Your task to perform on an android device: Open Amazon Image 0: 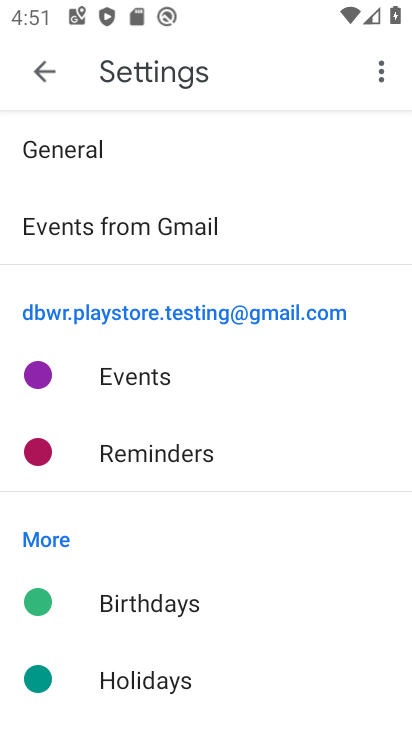
Step 0: press home button
Your task to perform on an android device: Open Amazon Image 1: 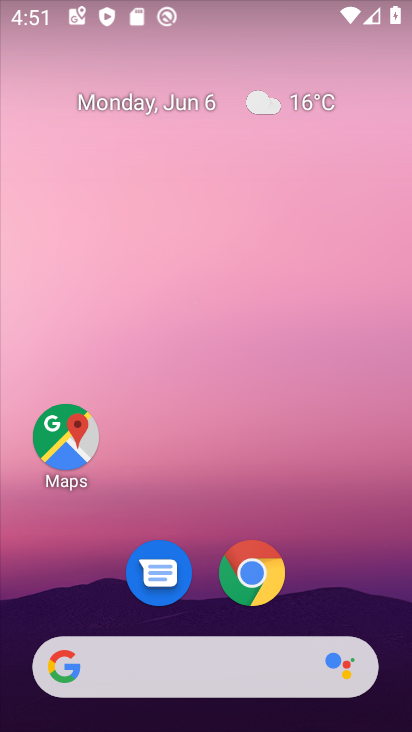
Step 1: click (248, 565)
Your task to perform on an android device: Open Amazon Image 2: 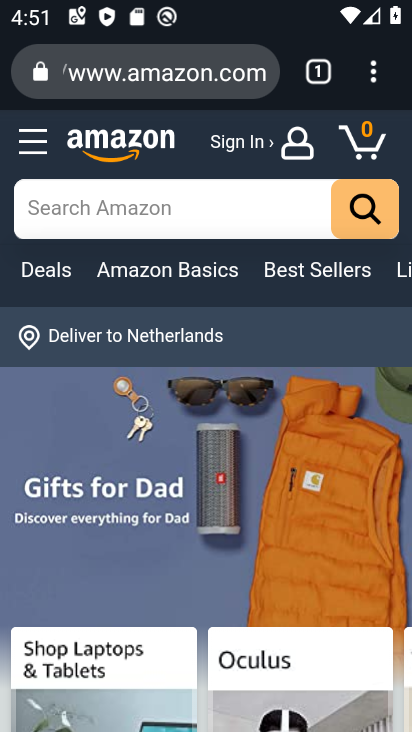
Step 2: task complete